Your task to perform on an android device: Go to battery settings Image 0: 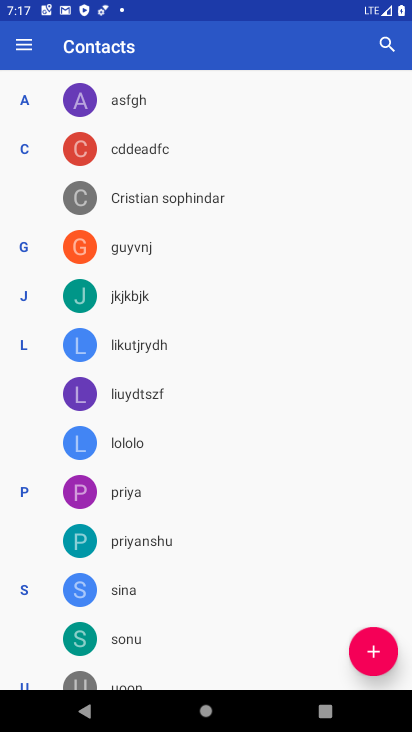
Step 0: press home button
Your task to perform on an android device: Go to battery settings Image 1: 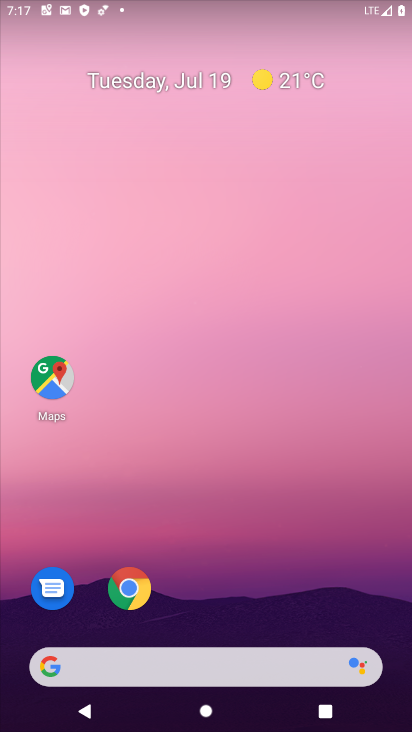
Step 1: drag from (269, 585) to (276, 120)
Your task to perform on an android device: Go to battery settings Image 2: 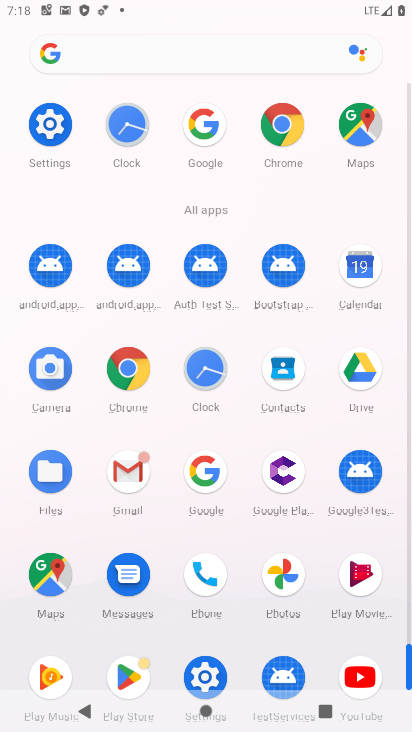
Step 2: click (204, 678)
Your task to perform on an android device: Go to battery settings Image 3: 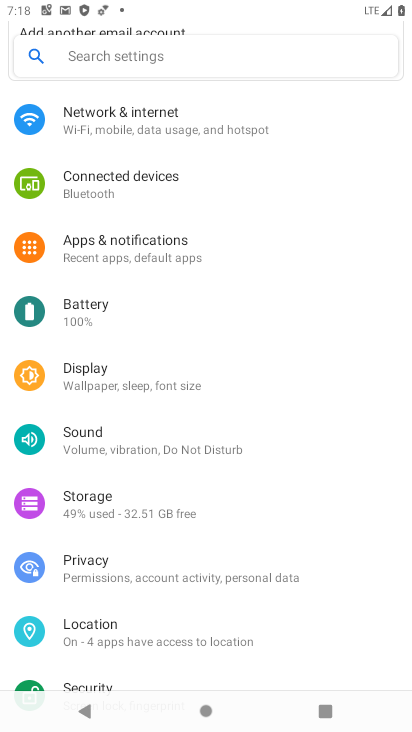
Step 3: click (136, 323)
Your task to perform on an android device: Go to battery settings Image 4: 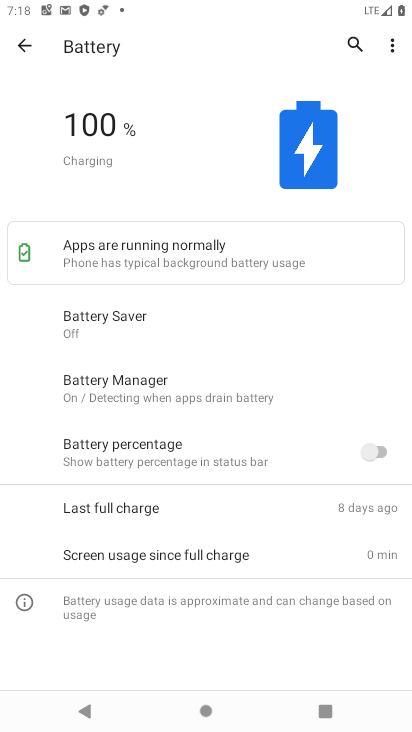
Step 4: task complete